Your task to perform on an android device: turn on sleep mode Image 0: 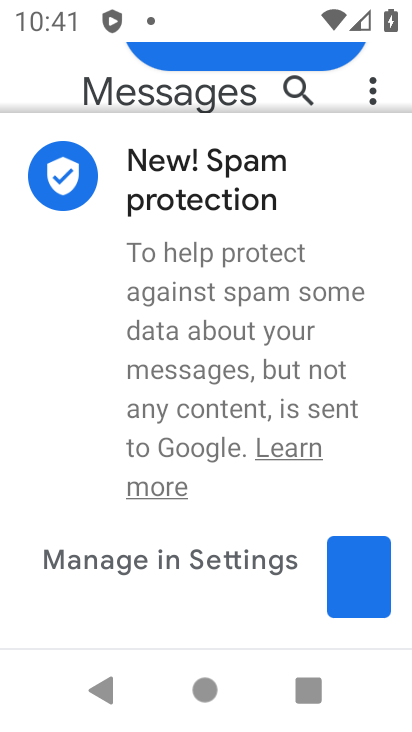
Step 0: press home button
Your task to perform on an android device: turn on sleep mode Image 1: 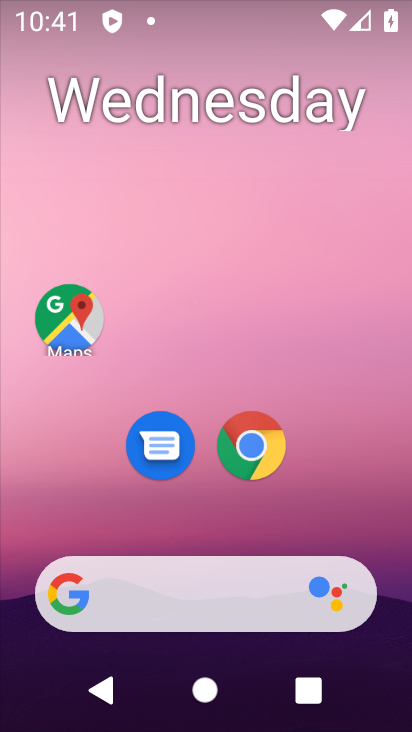
Step 1: drag from (324, 465) to (311, 175)
Your task to perform on an android device: turn on sleep mode Image 2: 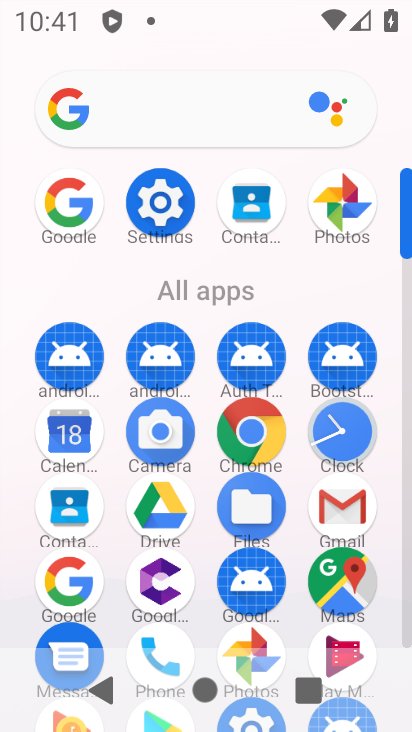
Step 2: click (143, 212)
Your task to perform on an android device: turn on sleep mode Image 3: 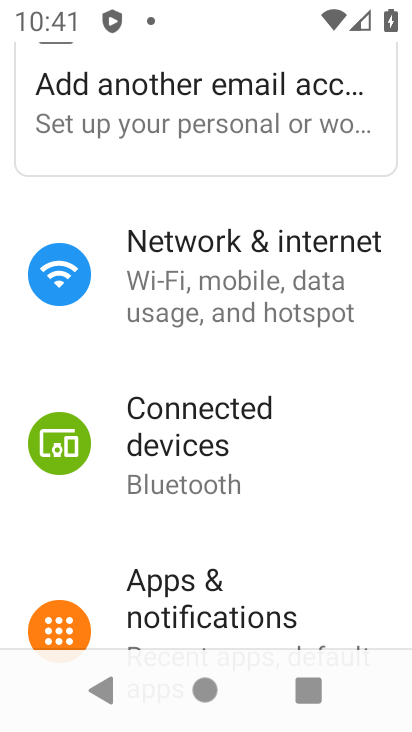
Step 3: drag from (240, 512) to (236, 270)
Your task to perform on an android device: turn on sleep mode Image 4: 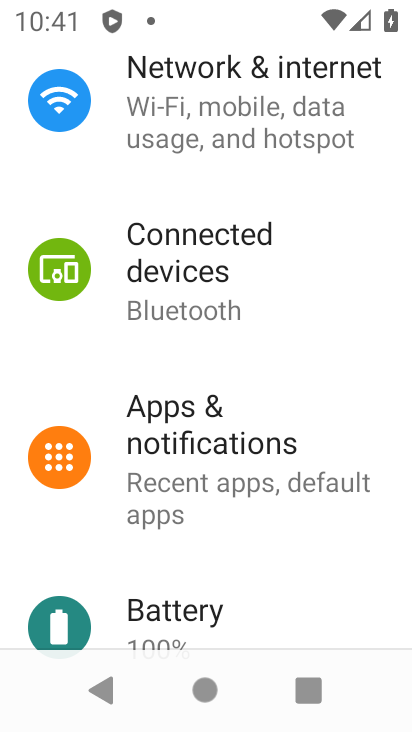
Step 4: drag from (333, 250) to (328, 496)
Your task to perform on an android device: turn on sleep mode Image 5: 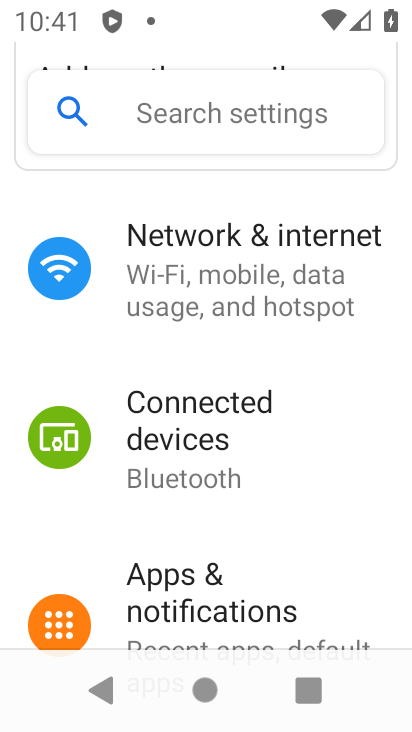
Step 5: drag from (273, 593) to (266, 303)
Your task to perform on an android device: turn on sleep mode Image 6: 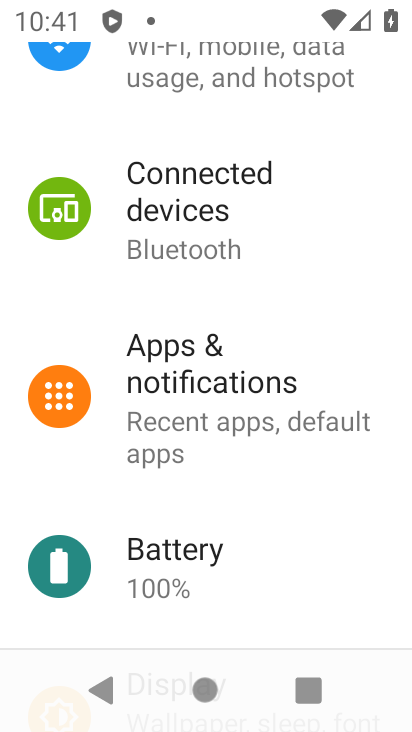
Step 6: drag from (263, 513) to (262, 202)
Your task to perform on an android device: turn on sleep mode Image 7: 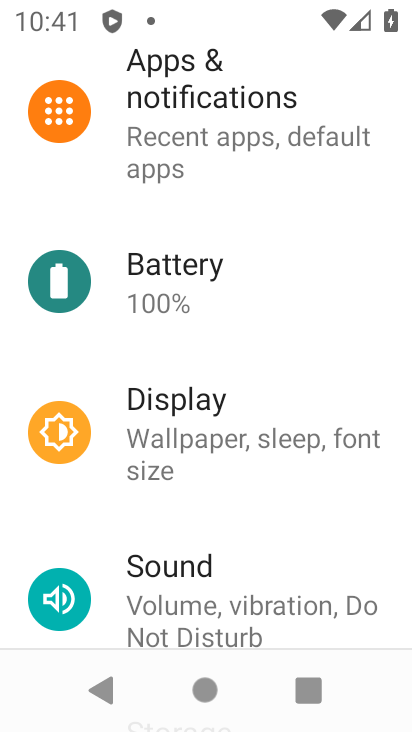
Step 7: click (220, 447)
Your task to perform on an android device: turn on sleep mode Image 8: 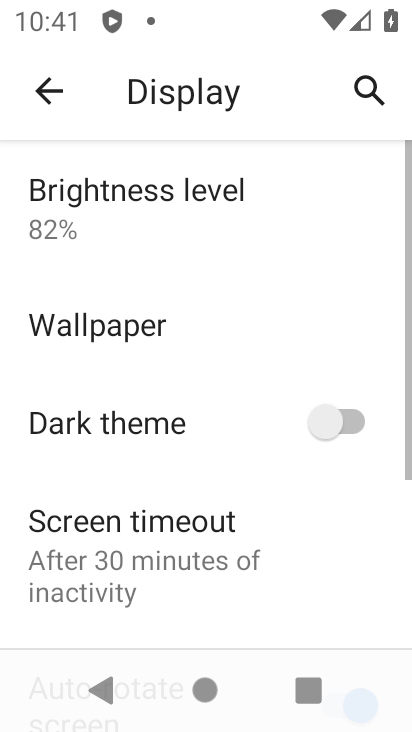
Step 8: drag from (203, 583) to (195, 208)
Your task to perform on an android device: turn on sleep mode Image 9: 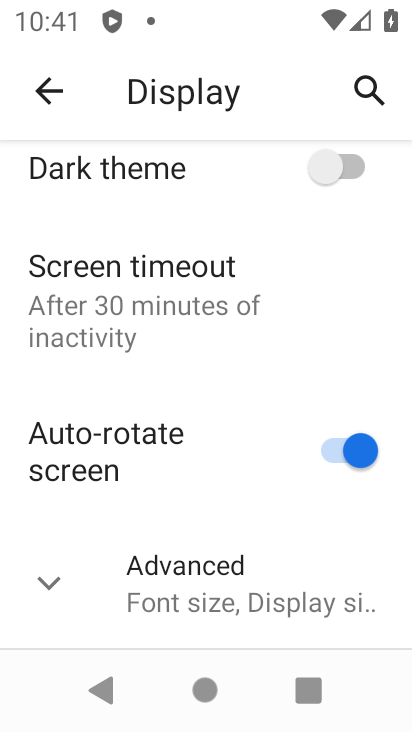
Step 9: click (56, 586)
Your task to perform on an android device: turn on sleep mode Image 10: 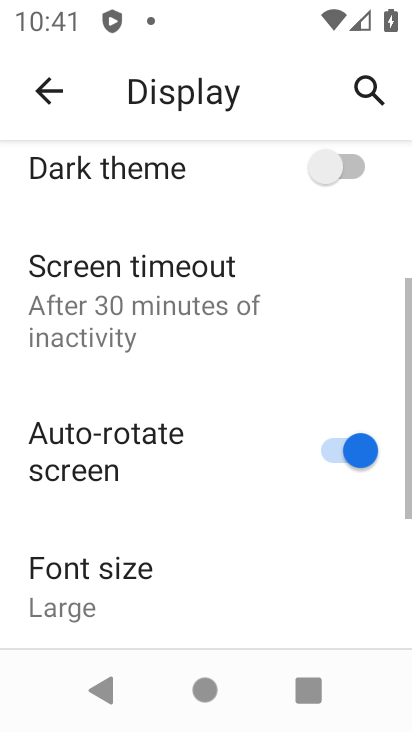
Step 10: task complete